Your task to perform on an android device: What's on my calendar tomorrow? Image 0: 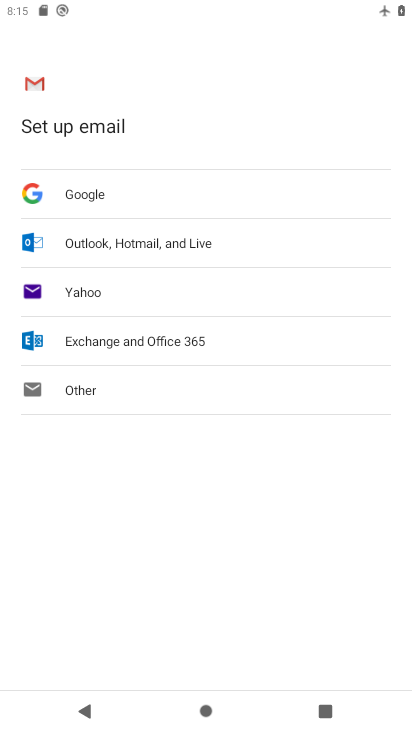
Step 0: press home button
Your task to perform on an android device: What's on my calendar tomorrow? Image 1: 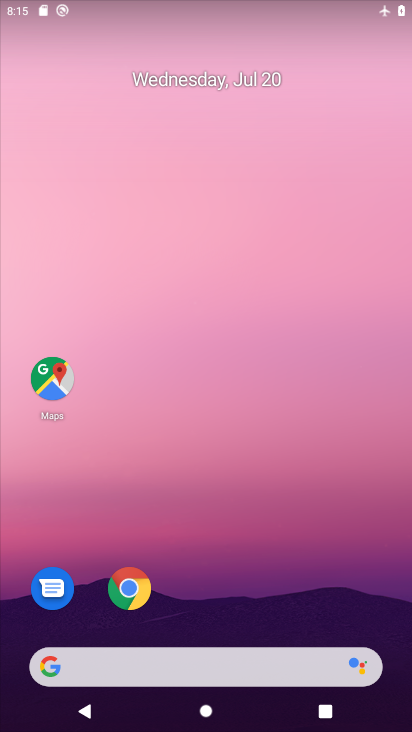
Step 1: drag from (203, 630) to (193, 43)
Your task to perform on an android device: What's on my calendar tomorrow? Image 2: 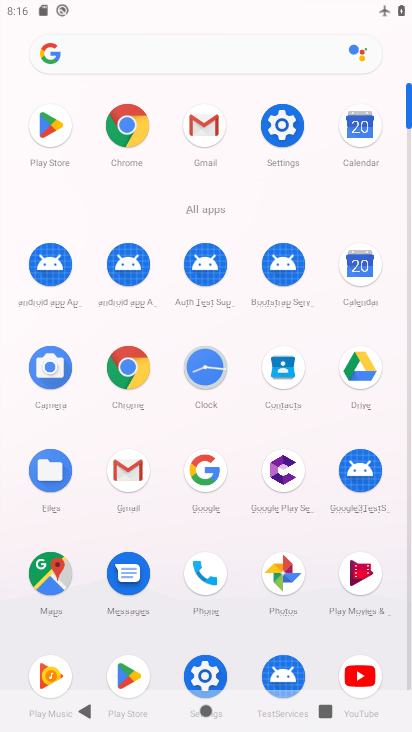
Step 2: click (358, 260)
Your task to perform on an android device: What's on my calendar tomorrow? Image 3: 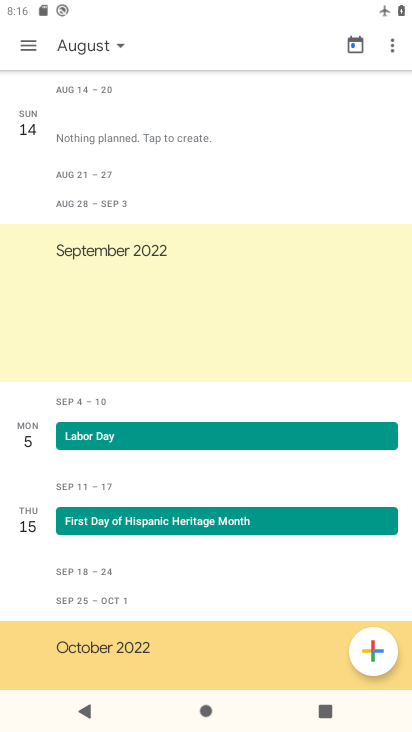
Step 3: click (117, 42)
Your task to perform on an android device: What's on my calendar tomorrow? Image 4: 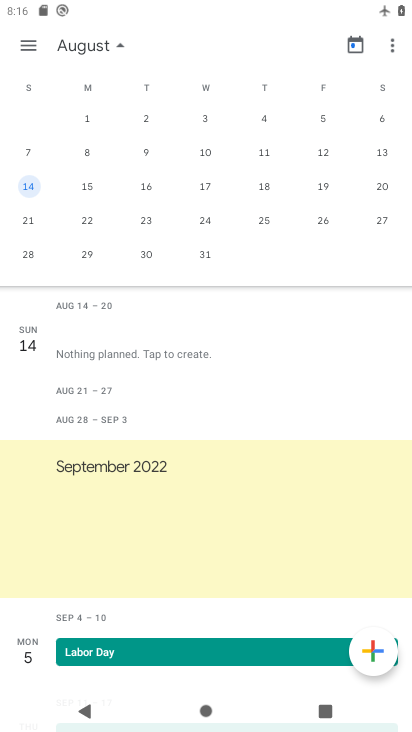
Step 4: drag from (72, 164) to (394, 185)
Your task to perform on an android device: What's on my calendar tomorrow? Image 5: 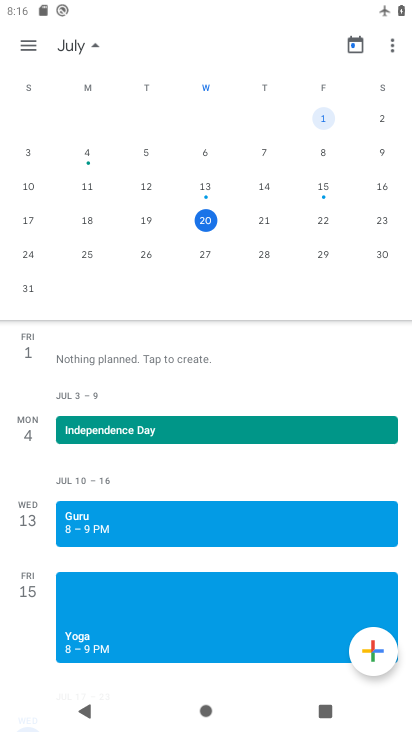
Step 5: click (207, 216)
Your task to perform on an android device: What's on my calendar tomorrow? Image 6: 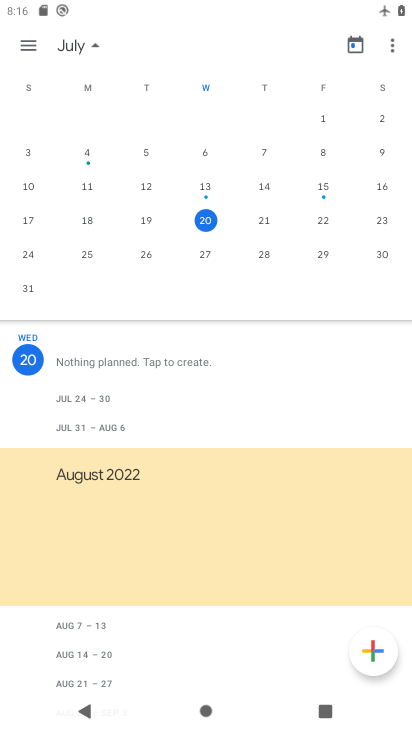
Step 6: click (92, 42)
Your task to perform on an android device: What's on my calendar tomorrow? Image 7: 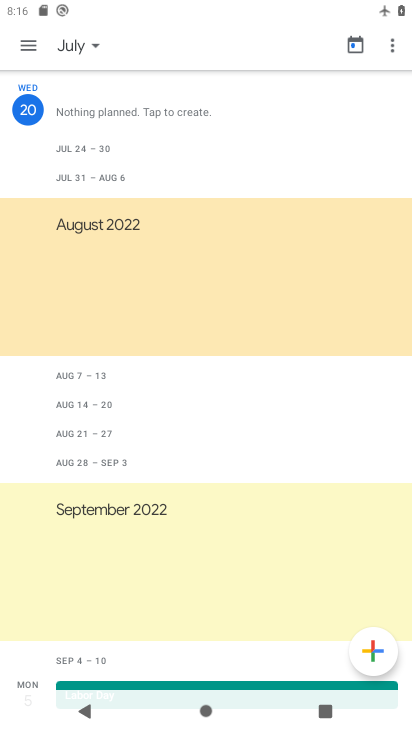
Step 7: click (43, 102)
Your task to perform on an android device: What's on my calendar tomorrow? Image 8: 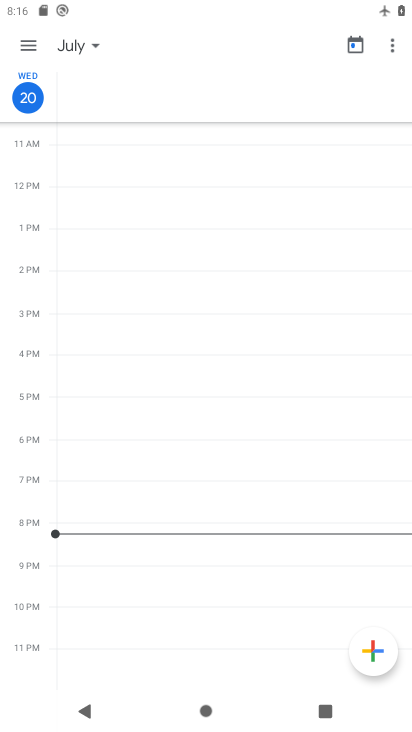
Step 8: click (46, 99)
Your task to perform on an android device: What's on my calendar tomorrow? Image 9: 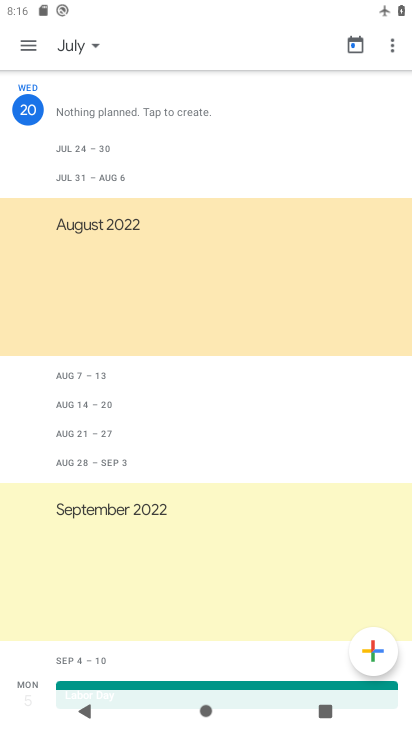
Step 9: click (100, 45)
Your task to perform on an android device: What's on my calendar tomorrow? Image 10: 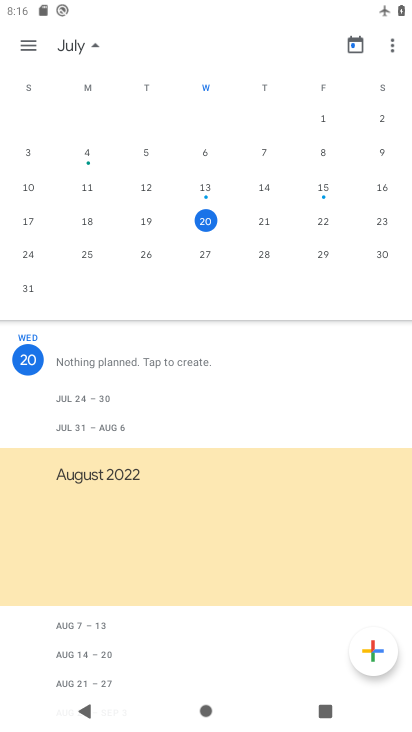
Step 10: click (262, 219)
Your task to perform on an android device: What's on my calendar tomorrow? Image 11: 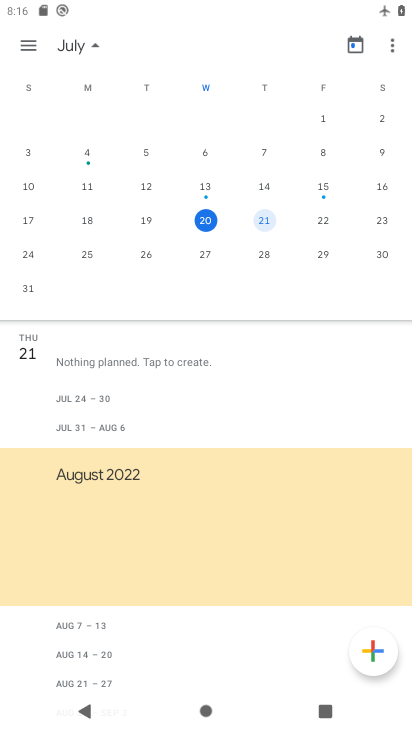
Step 11: click (34, 348)
Your task to perform on an android device: What's on my calendar tomorrow? Image 12: 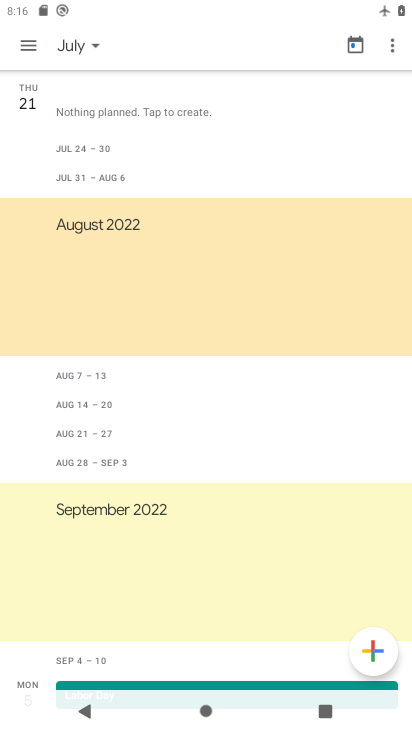
Step 12: click (35, 94)
Your task to perform on an android device: What's on my calendar tomorrow? Image 13: 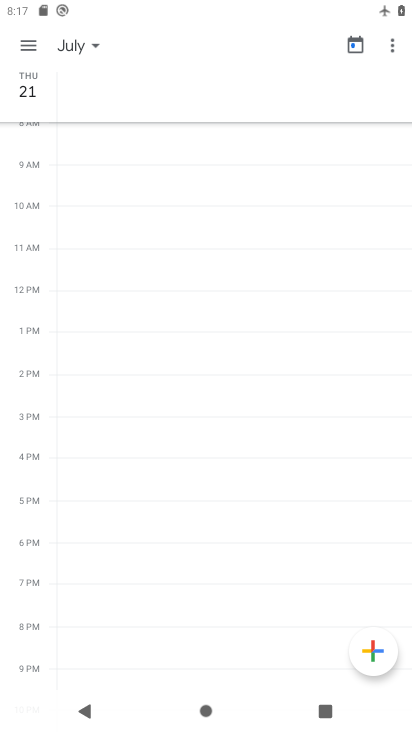
Step 13: task complete